Your task to perform on an android device: turn pop-ups off in chrome Image 0: 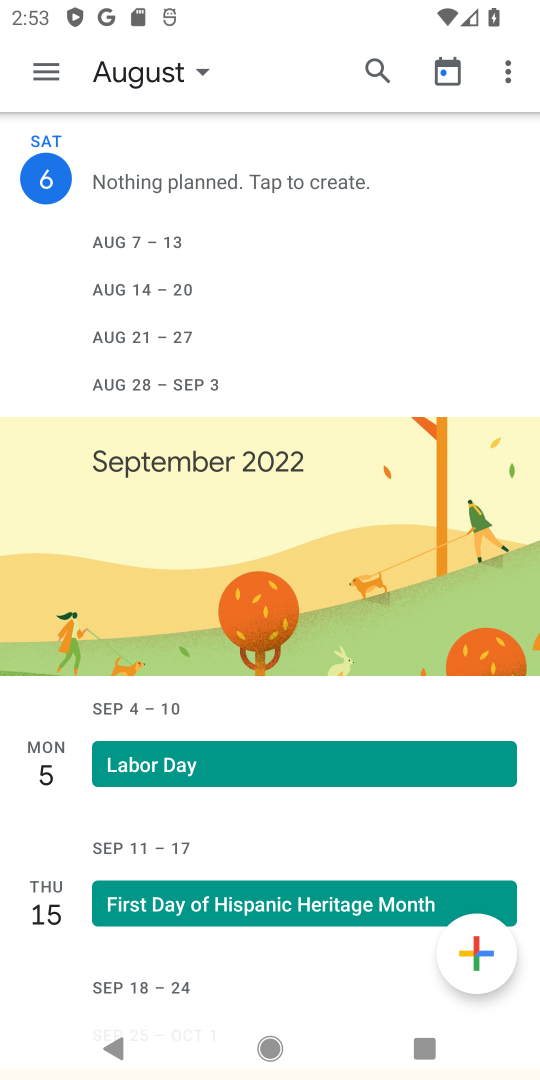
Step 0: press home button
Your task to perform on an android device: turn pop-ups off in chrome Image 1: 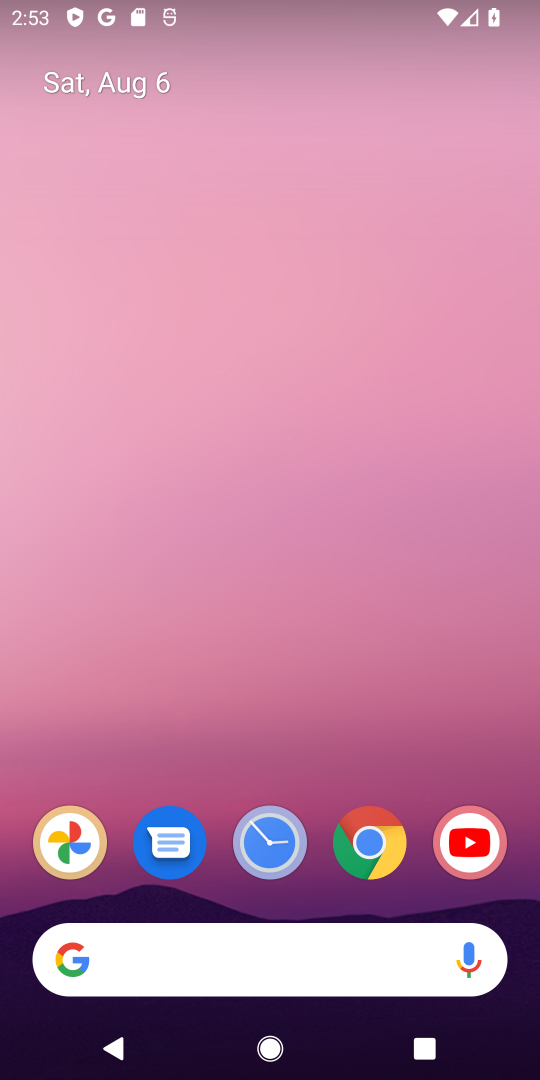
Step 1: click (379, 850)
Your task to perform on an android device: turn pop-ups off in chrome Image 2: 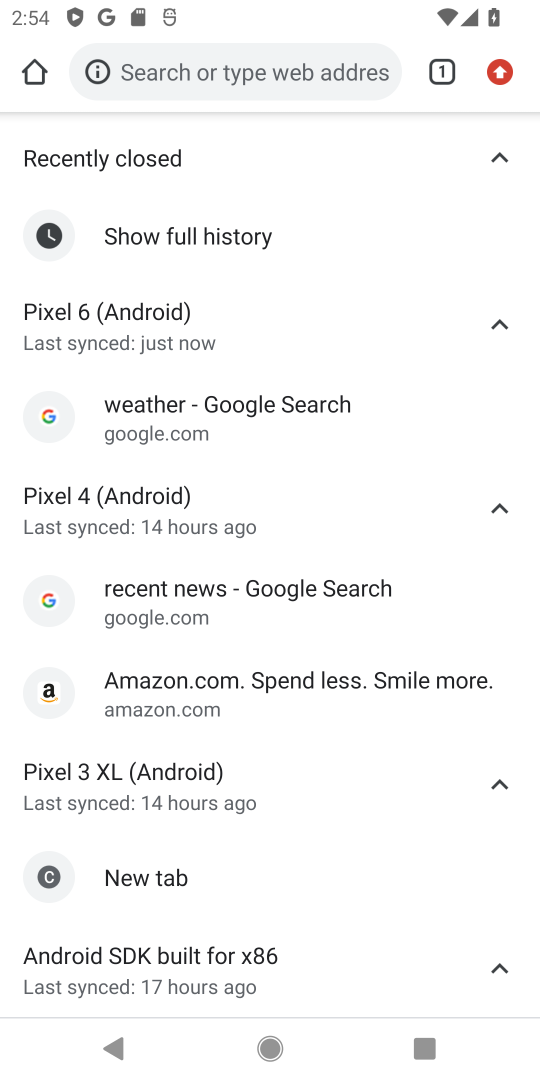
Step 2: press home button
Your task to perform on an android device: turn pop-ups off in chrome Image 3: 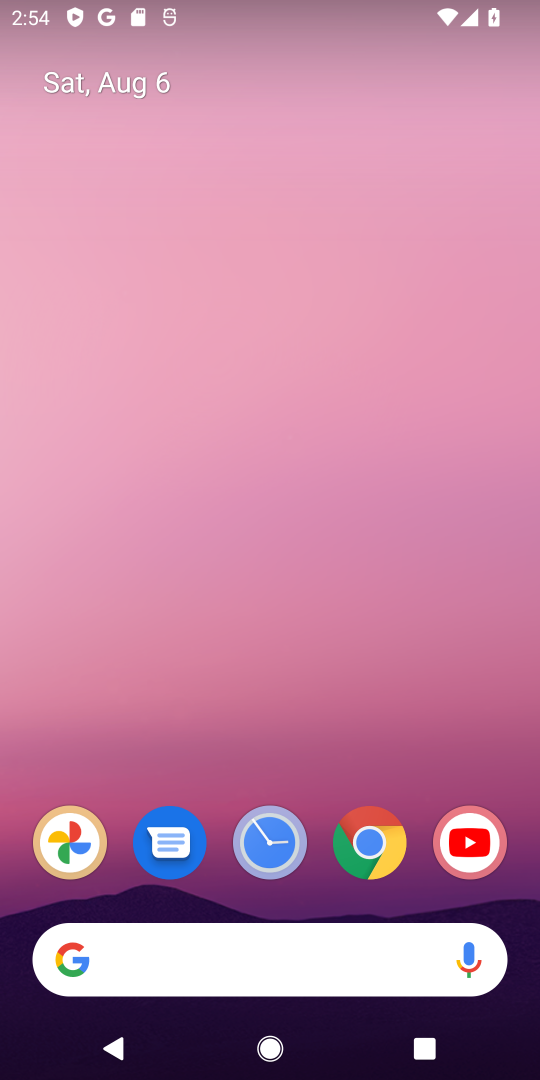
Step 3: click (372, 848)
Your task to perform on an android device: turn pop-ups off in chrome Image 4: 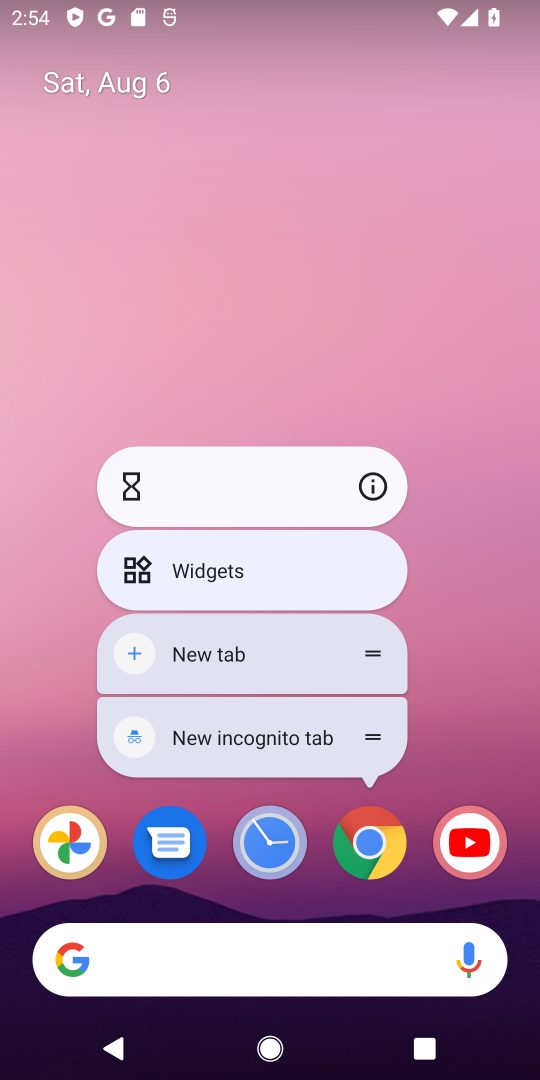
Step 4: click (365, 484)
Your task to perform on an android device: turn pop-ups off in chrome Image 5: 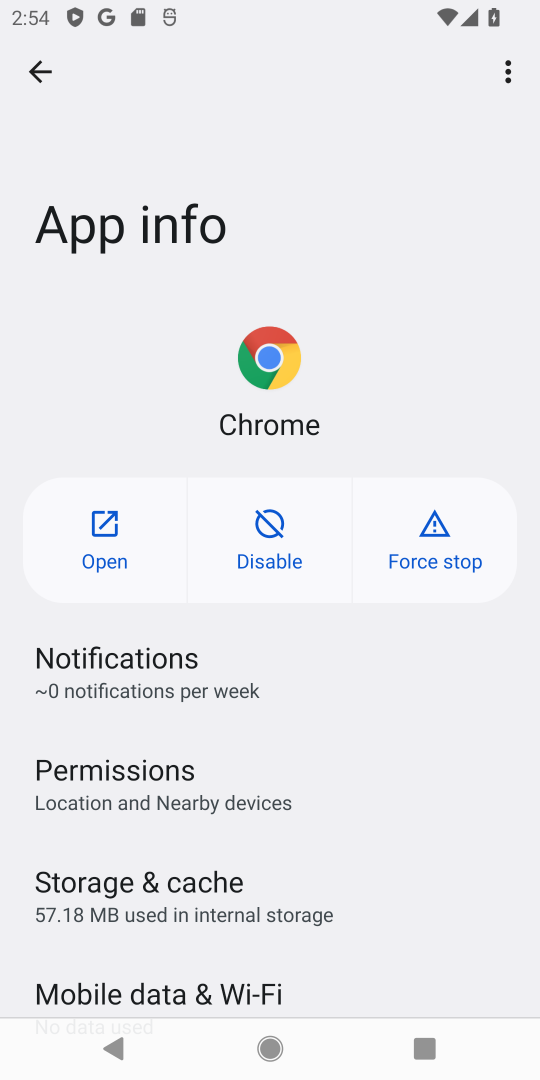
Step 5: drag from (421, 889) to (407, 360)
Your task to perform on an android device: turn pop-ups off in chrome Image 6: 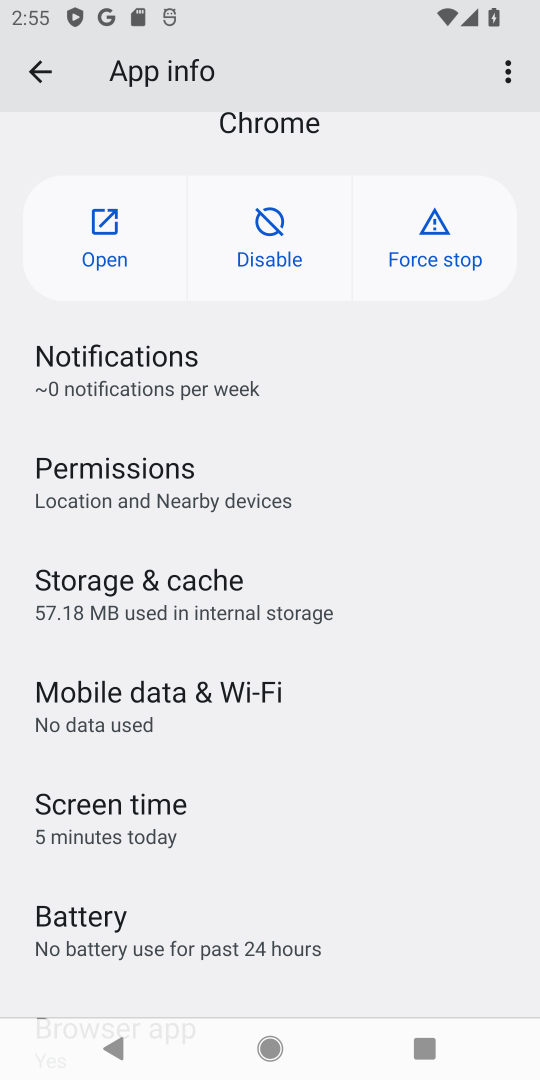
Step 6: drag from (366, 889) to (349, 377)
Your task to perform on an android device: turn pop-ups off in chrome Image 7: 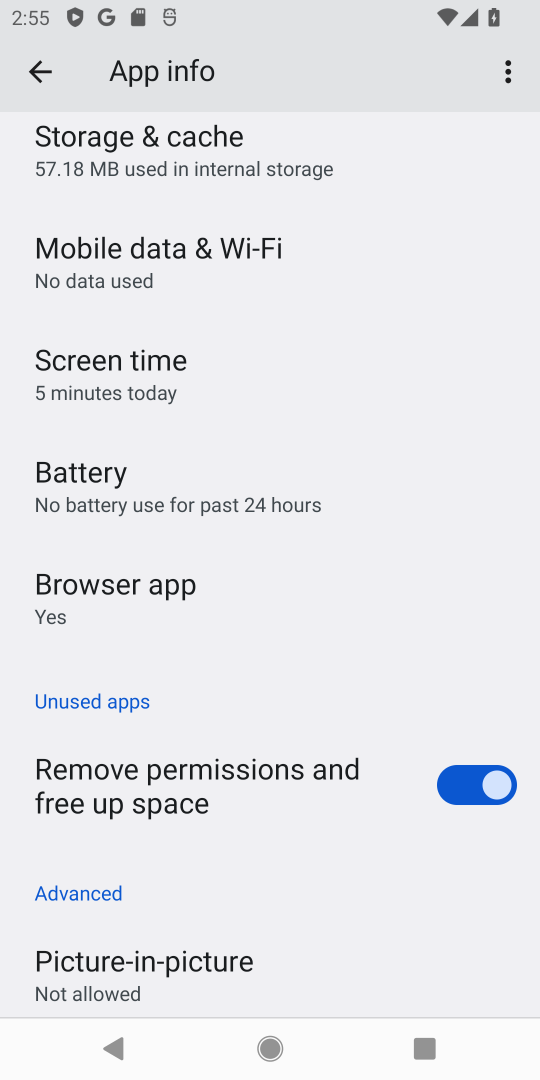
Step 7: drag from (356, 903) to (336, 436)
Your task to perform on an android device: turn pop-ups off in chrome Image 8: 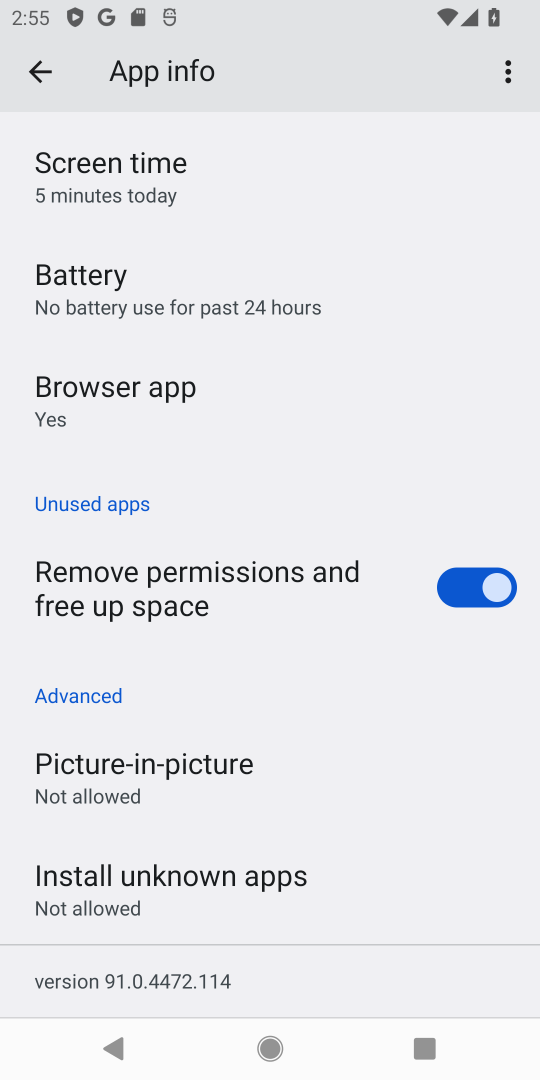
Step 8: click (179, 777)
Your task to perform on an android device: turn pop-ups off in chrome Image 9: 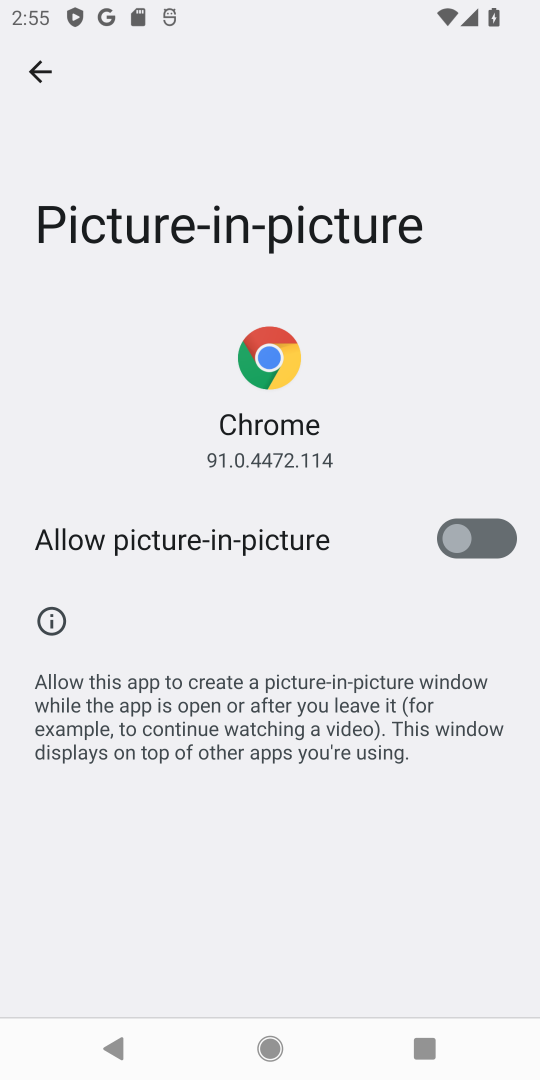
Step 9: task complete